Your task to perform on an android device: What's the news in Sri Lanka? Image 0: 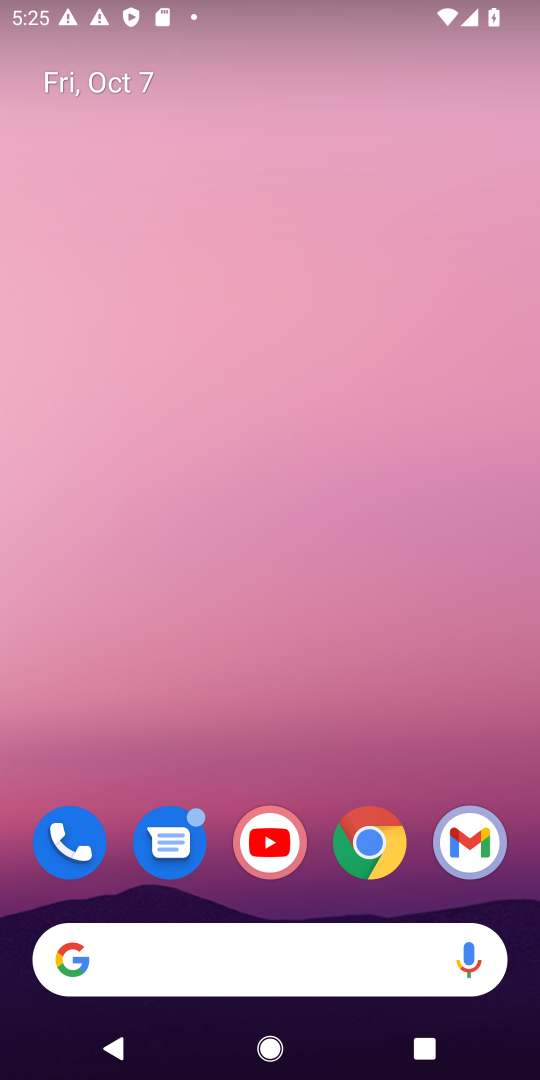
Step 0: click (250, 942)
Your task to perform on an android device: What's the news in Sri Lanka? Image 1: 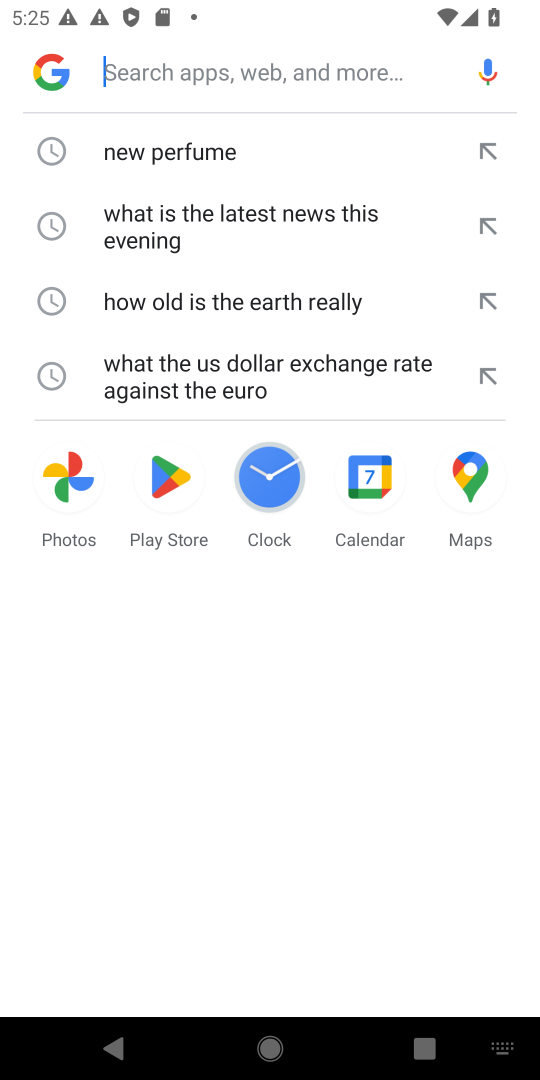
Step 1: type "What's the news in Sri Lanka"
Your task to perform on an android device: What's the news in Sri Lanka? Image 2: 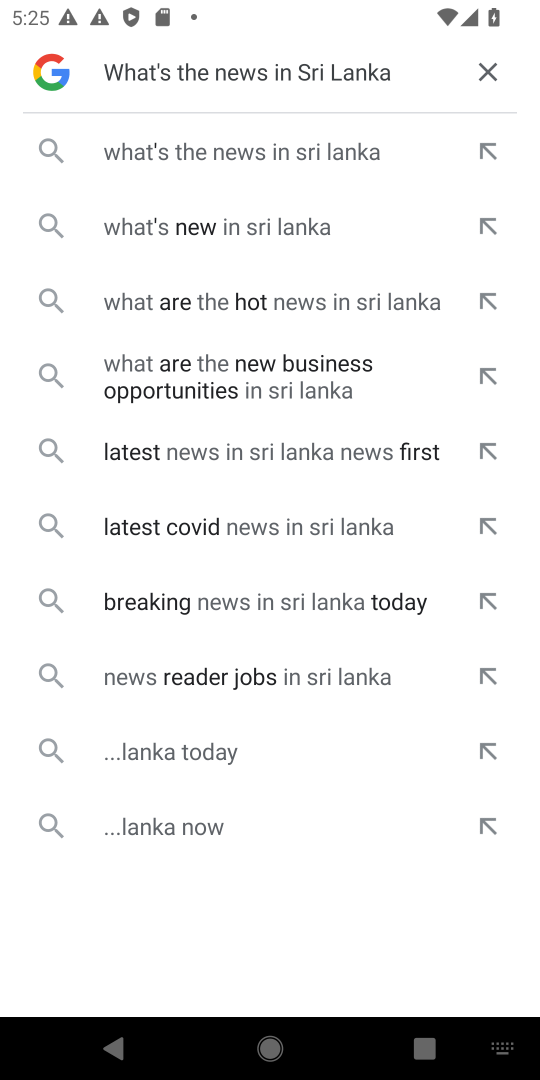
Step 2: click (233, 149)
Your task to perform on an android device: What's the news in Sri Lanka? Image 3: 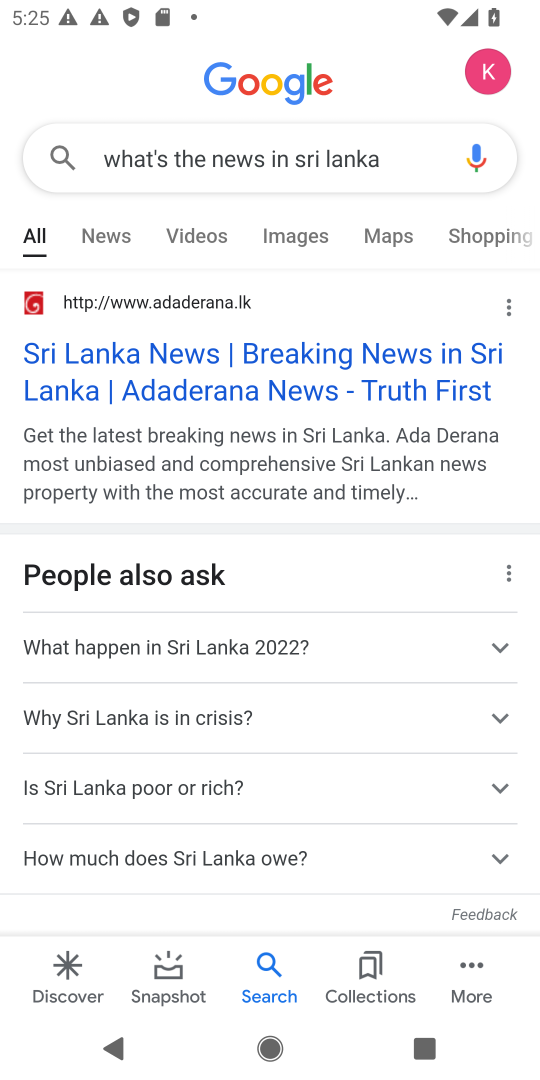
Step 3: click (278, 378)
Your task to perform on an android device: What's the news in Sri Lanka? Image 4: 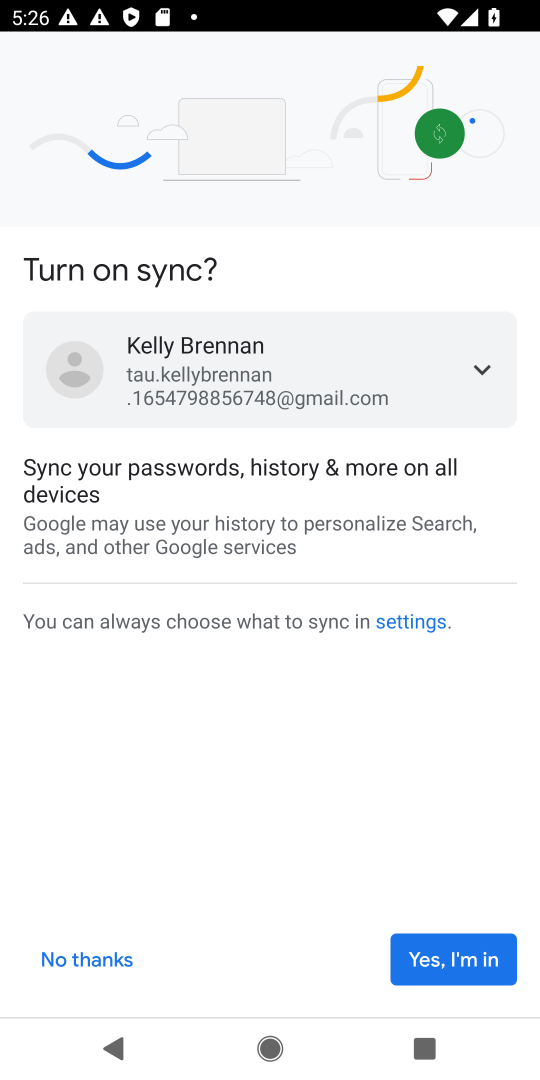
Step 4: click (448, 963)
Your task to perform on an android device: What's the news in Sri Lanka? Image 5: 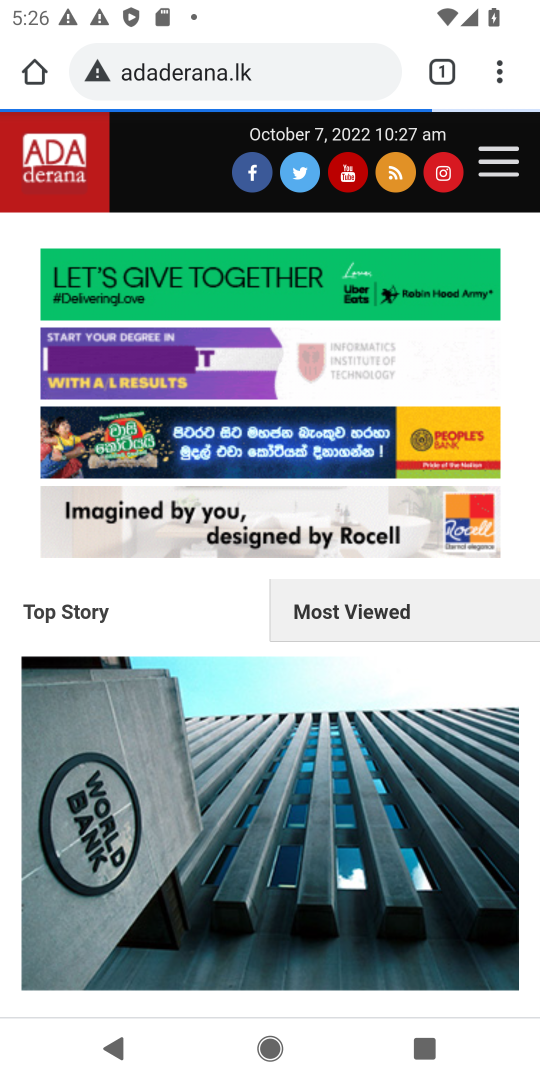
Step 5: task complete